Your task to perform on an android device: empty trash in the gmail app Image 0: 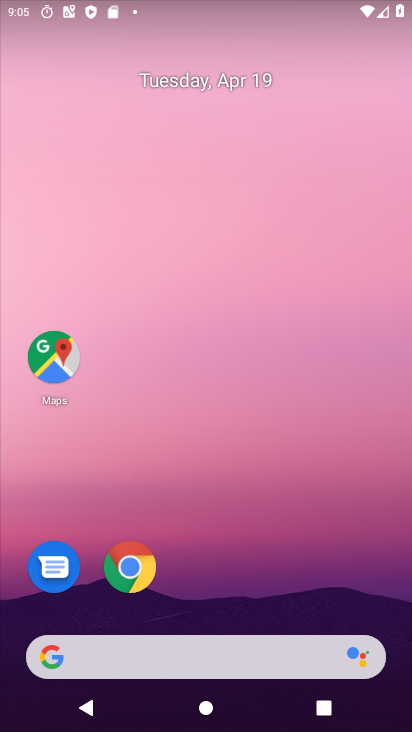
Step 0: drag from (211, 727) to (190, 63)
Your task to perform on an android device: empty trash in the gmail app Image 1: 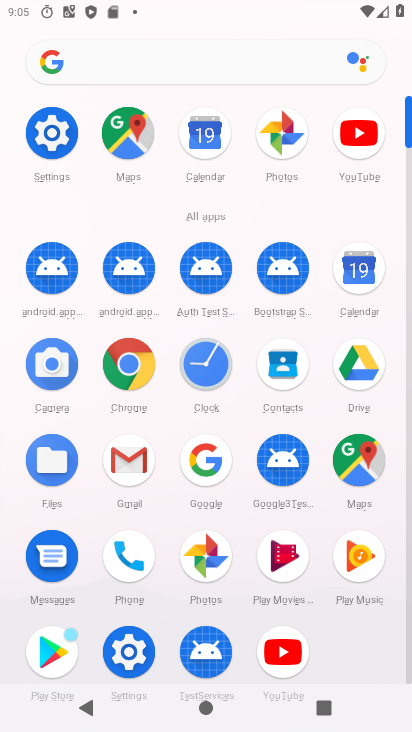
Step 1: click (125, 460)
Your task to perform on an android device: empty trash in the gmail app Image 2: 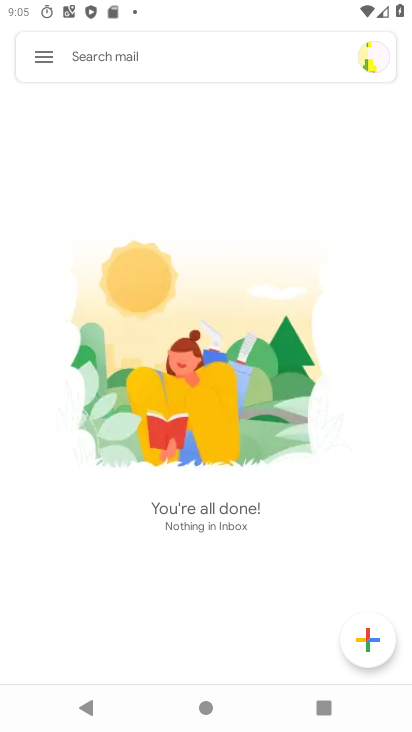
Step 2: click (38, 56)
Your task to perform on an android device: empty trash in the gmail app Image 3: 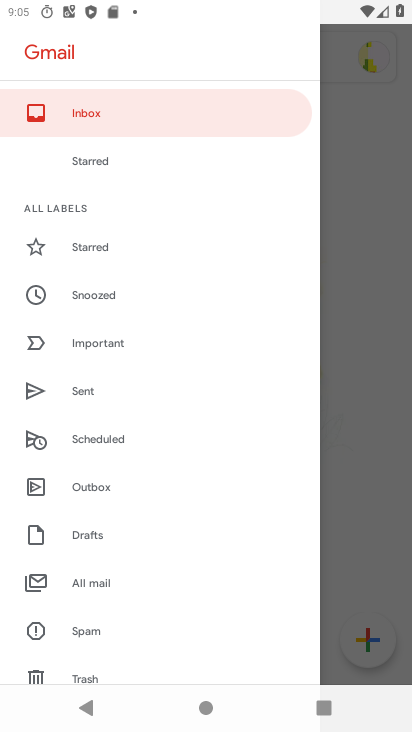
Step 3: drag from (127, 649) to (108, 234)
Your task to perform on an android device: empty trash in the gmail app Image 4: 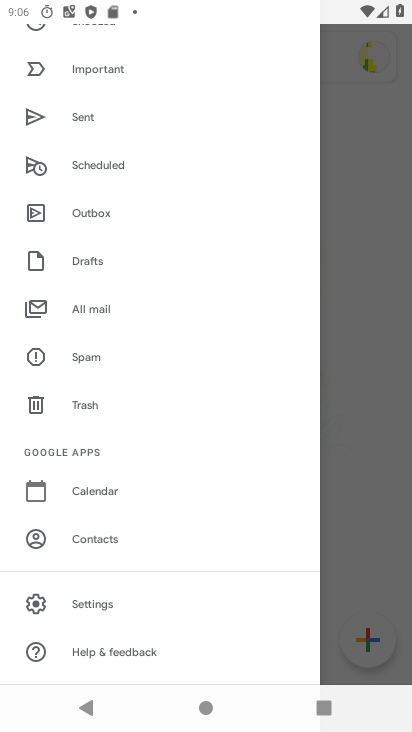
Step 4: click (74, 405)
Your task to perform on an android device: empty trash in the gmail app Image 5: 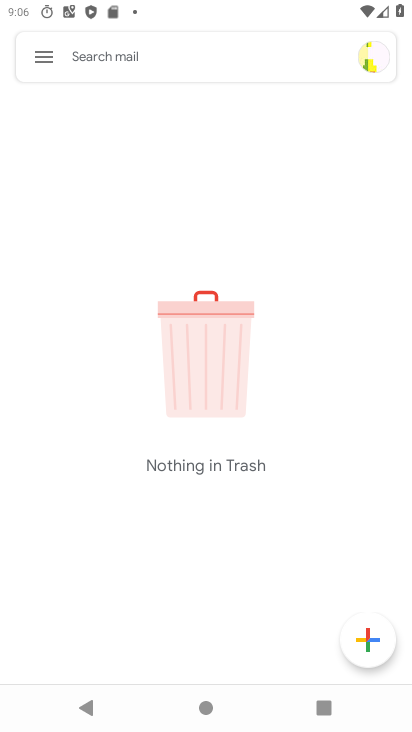
Step 5: task complete